Your task to perform on an android device: What is the recent news? Image 0: 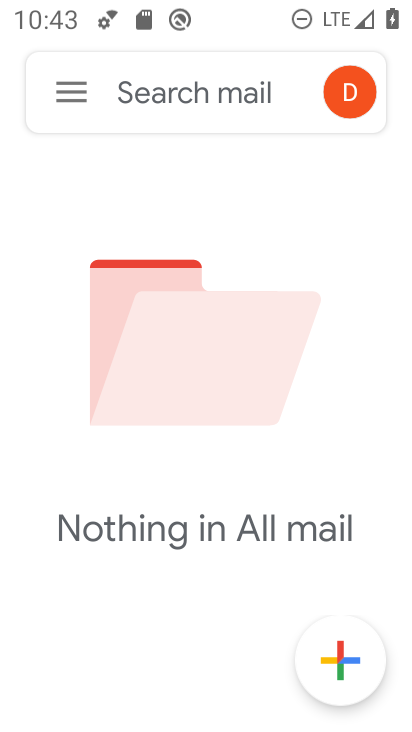
Step 0: press back button
Your task to perform on an android device: What is the recent news? Image 1: 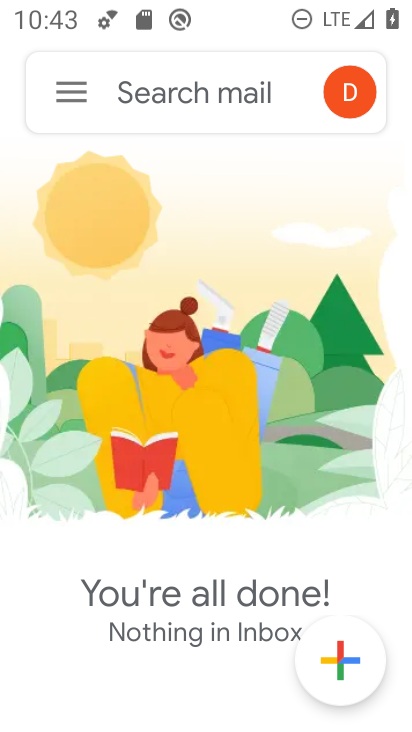
Step 1: press back button
Your task to perform on an android device: What is the recent news? Image 2: 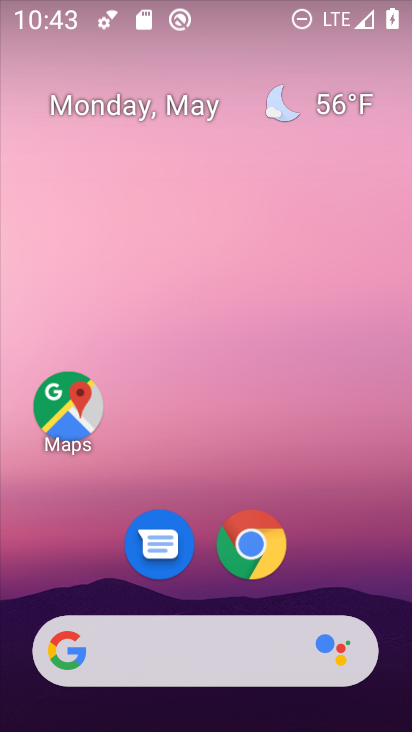
Step 2: click (252, 544)
Your task to perform on an android device: What is the recent news? Image 3: 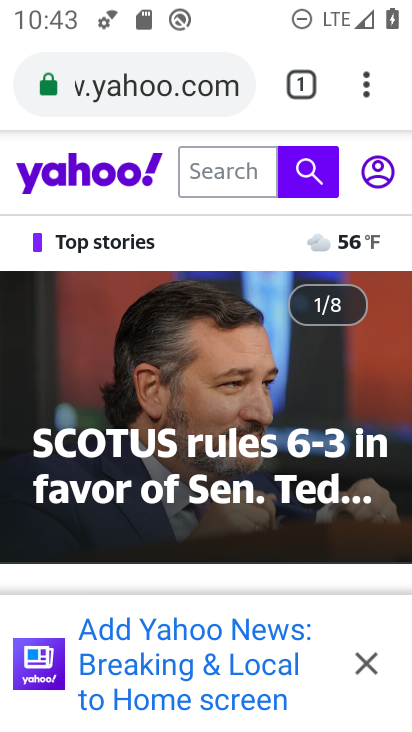
Step 3: click (225, 83)
Your task to perform on an android device: What is the recent news? Image 4: 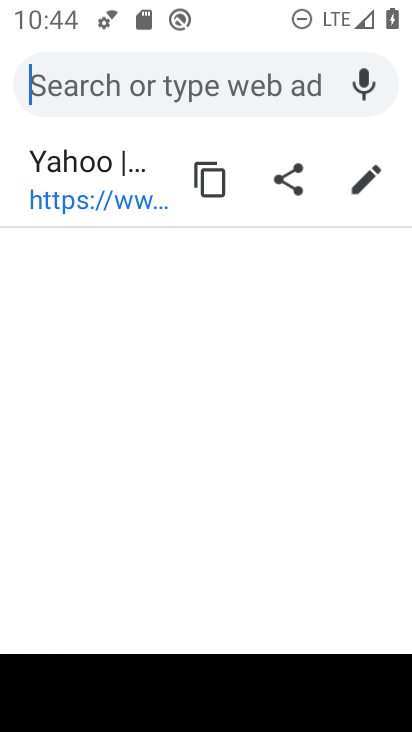
Step 4: type "recent news"
Your task to perform on an android device: What is the recent news? Image 5: 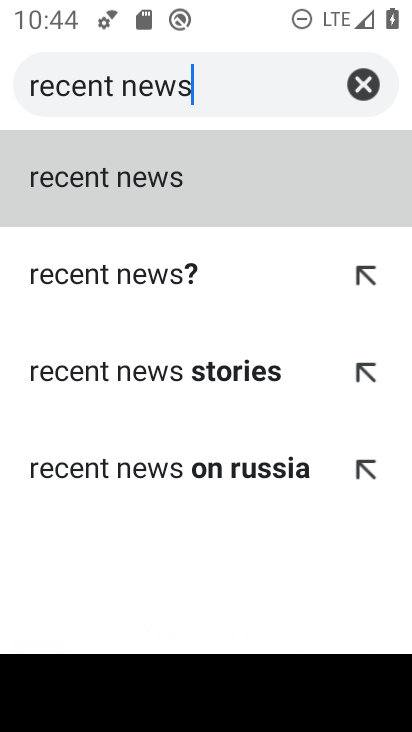
Step 5: click (153, 185)
Your task to perform on an android device: What is the recent news? Image 6: 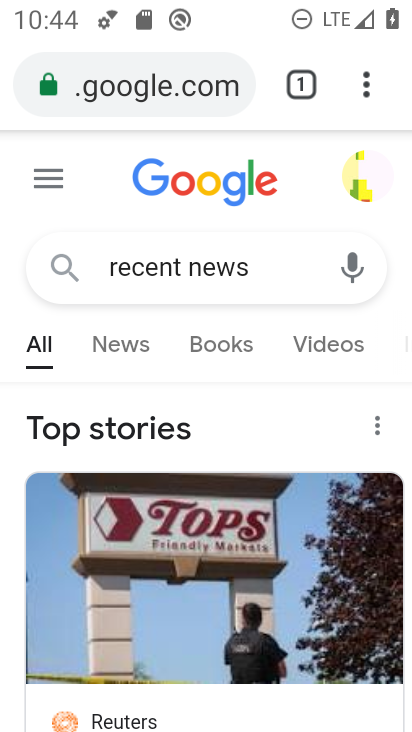
Step 6: task complete